Your task to perform on an android device: turn on notifications settings in the gmail app Image 0: 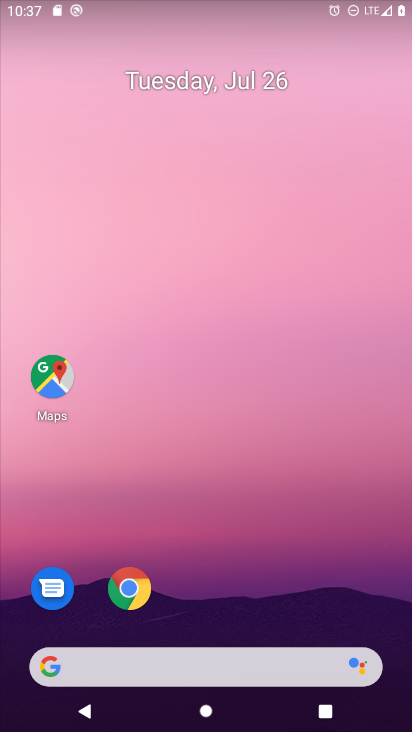
Step 0: drag from (225, 657) to (354, 230)
Your task to perform on an android device: turn on notifications settings in the gmail app Image 1: 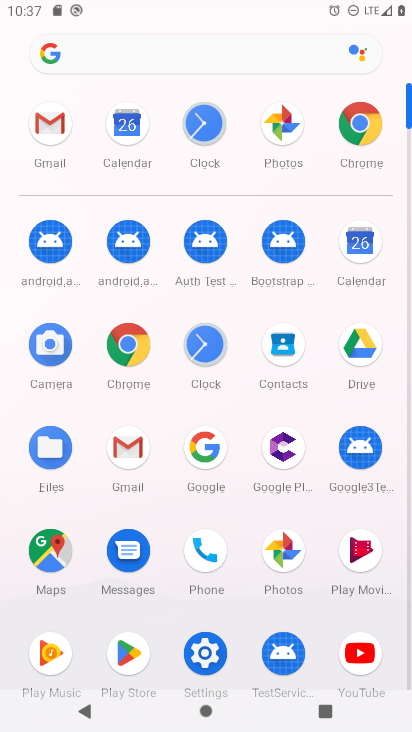
Step 1: click (133, 449)
Your task to perform on an android device: turn on notifications settings in the gmail app Image 2: 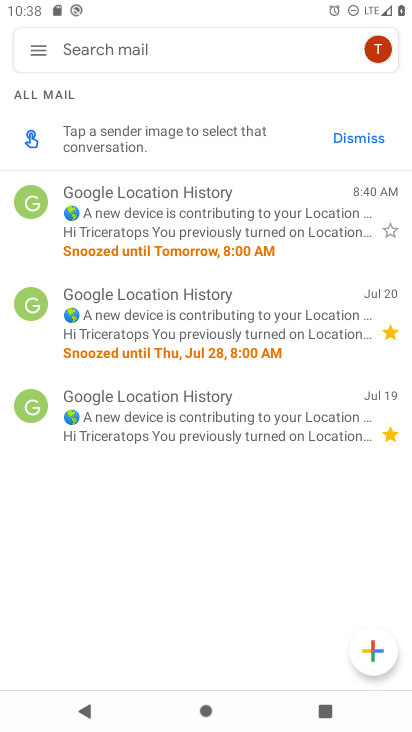
Step 2: click (39, 56)
Your task to perform on an android device: turn on notifications settings in the gmail app Image 3: 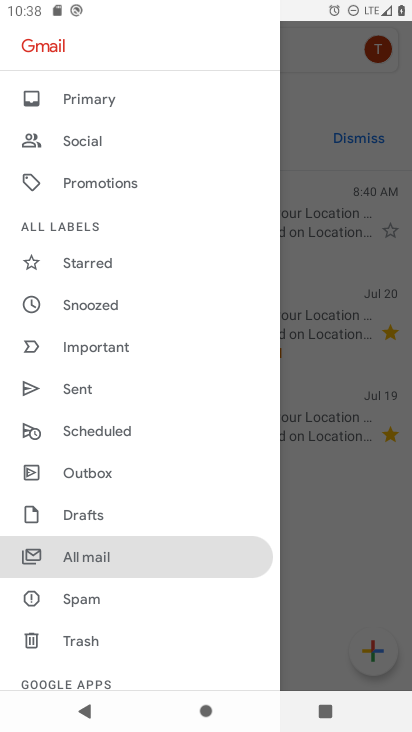
Step 3: drag from (172, 288) to (196, 201)
Your task to perform on an android device: turn on notifications settings in the gmail app Image 4: 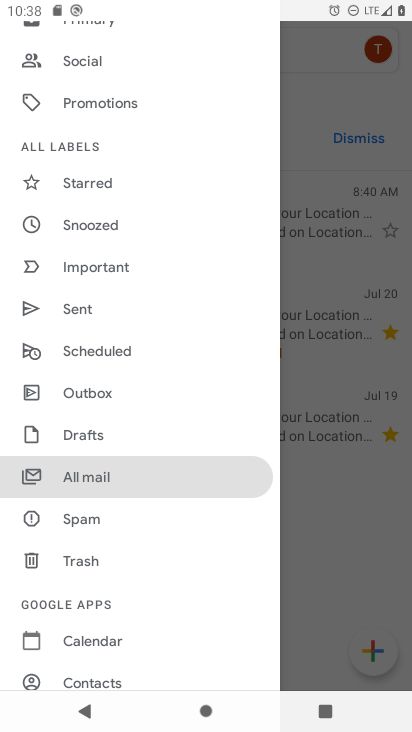
Step 4: drag from (102, 532) to (202, 109)
Your task to perform on an android device: turn on notifications settings in the gmail app Image 5: 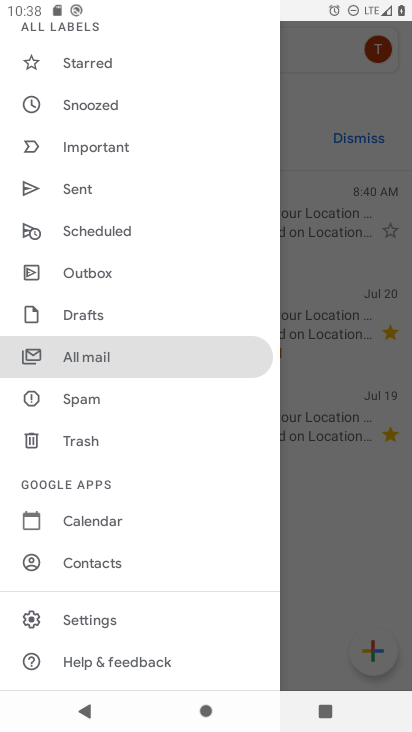
Step 5: click (77, 625)
Your task to perform on an android device: turn on notifications settings in the gmail app Image 6: 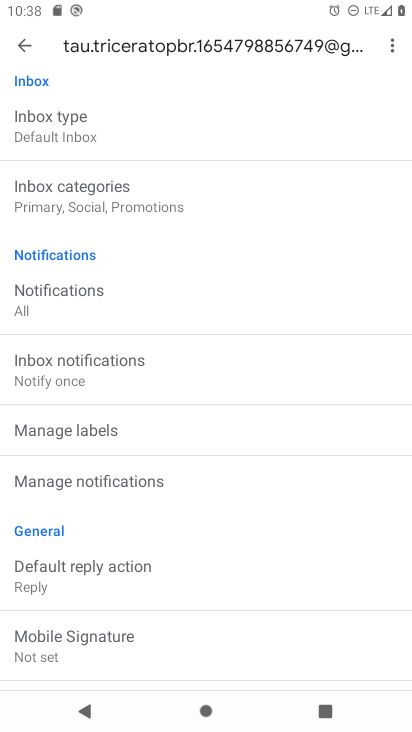
Step 6: drag from (148, 555) to (146, 371)
Your task to perform on an android device: turn on notifications settings in the gmail app Image 7: 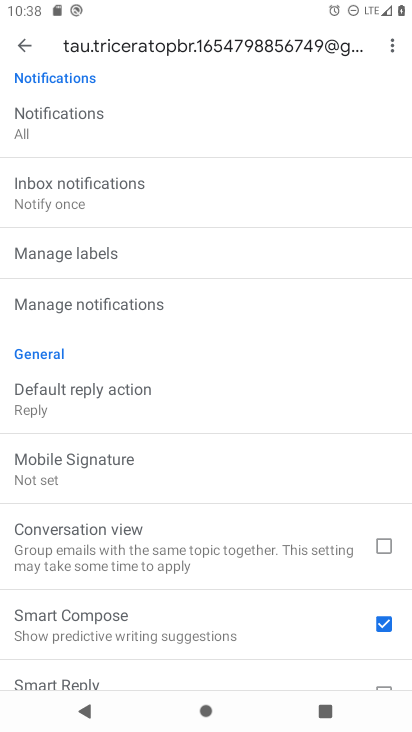
Step 7: click (21, 48)
Your task to perform on an android device: turn on notifications settings in the gmail app Image 8: 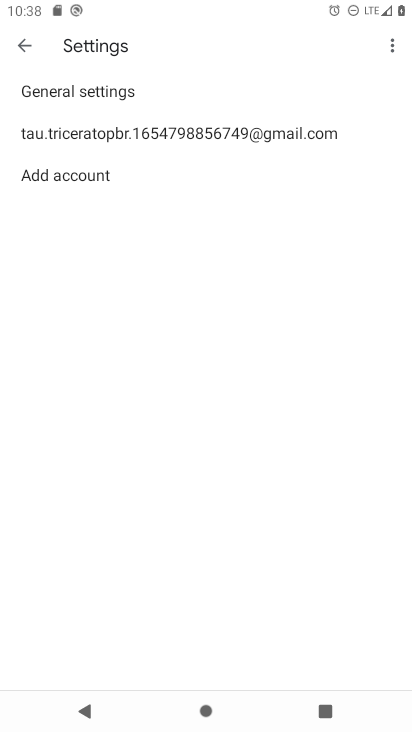
Step 8: click (91, 102)
Your task to perform on an android device: turn on notifications settings in the gmail app Image 9: 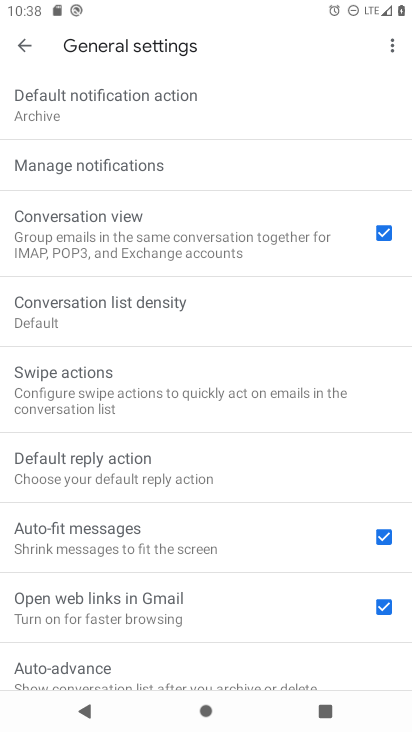
Step 9: click (152, 172)
Your task to perform on an android device: turn on notifications settings in the gmail app Image 10: 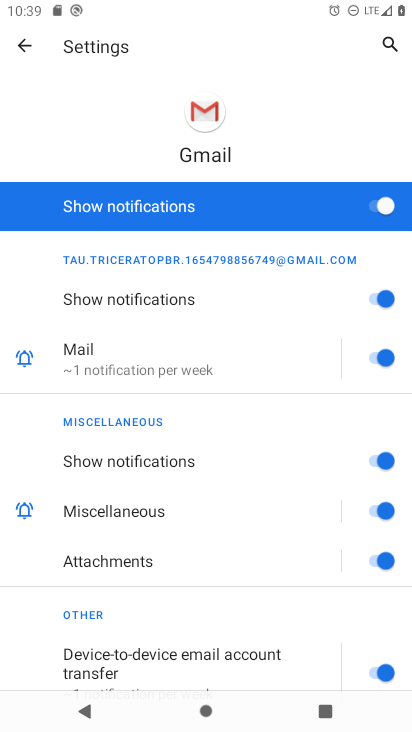
Step 10: task complete